Your task to perform on an android device: Do I have any events today? Image 0: 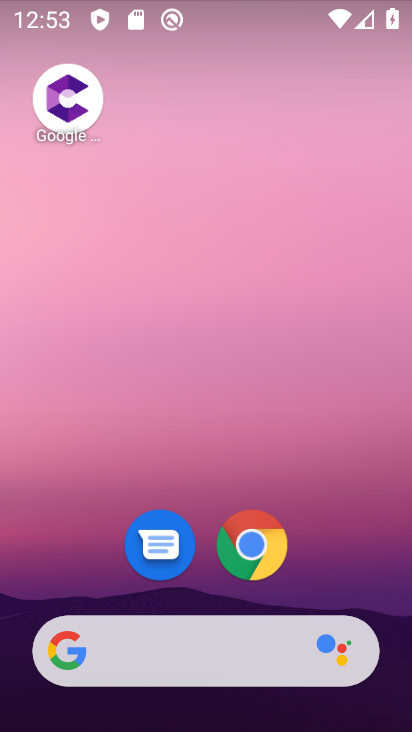
Step 0: drag from (354, 568) to (327, 127)
Your task to perform on an android device: Do I have any events today? Image 1: 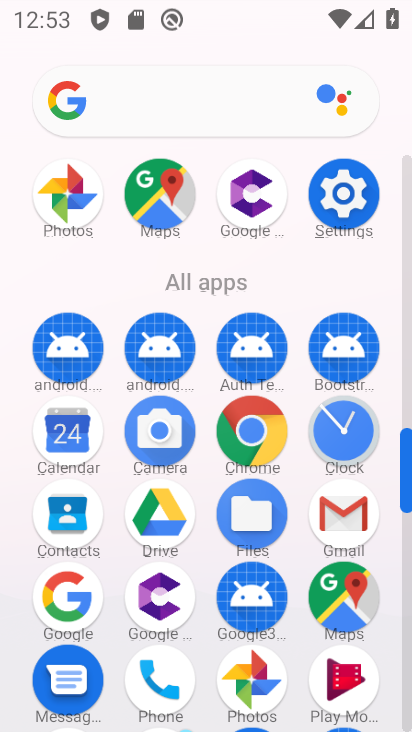
Step 1: click (407, 709)
Your task to perform on an android device: Do I have any events today? Image 2: 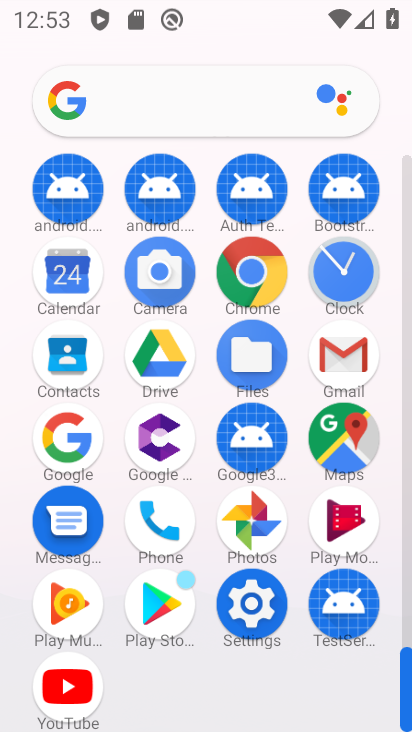
Step 2: click (66, 273)
Your task to perform on an android device: Do I have any events today? Image 3: 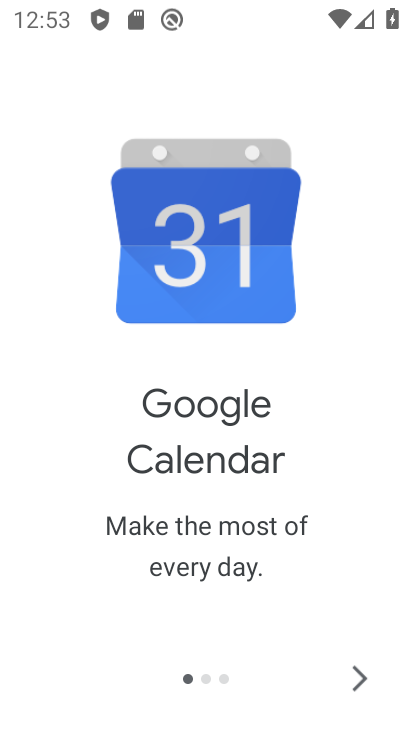
Step 3: click (361, 680)
Your task to perform on an android device: Do I have any events today? Image 4: 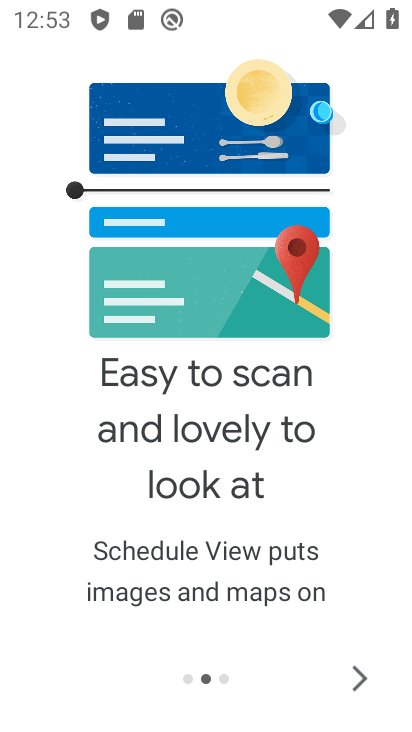
Step 4: click (361, 680)
Your task to perform on an android device: Do I have any events today? Image 5: 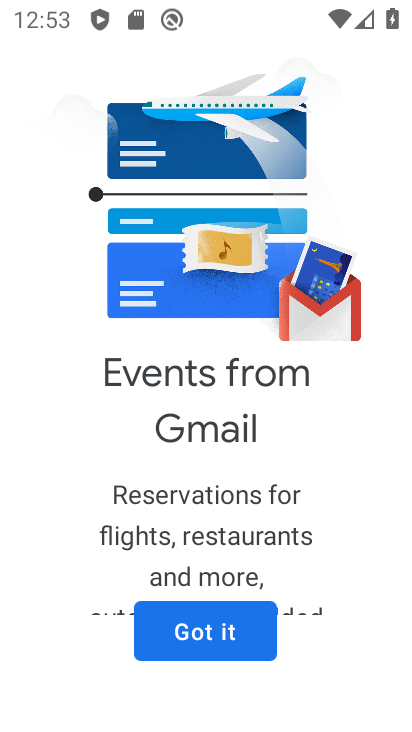
Step 5: click (361, 680)
Your task to perform on an android device: Do I have any events today? Image 6: 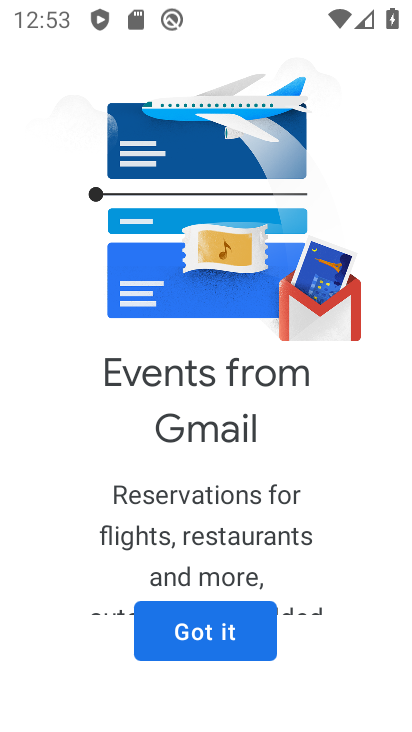
Step 6: click (184, 620)
Your task to perform on an android device: Do I have any events today? Image 7: 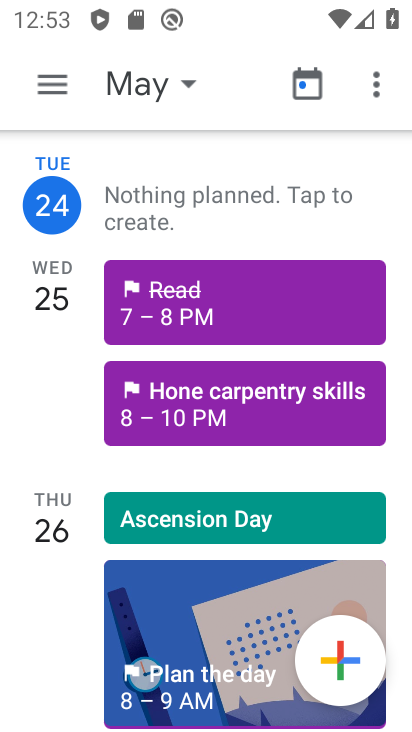
Step 7: click (58, 79)
Your task to perform on an android device: Do I have any events today? Image 8: 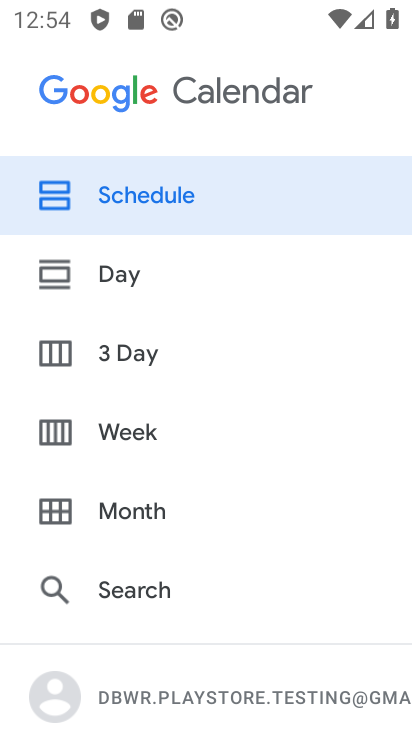
Step 8: click (133, 262)
Your task to perform on an android device: Do I have any events today? Image 9: 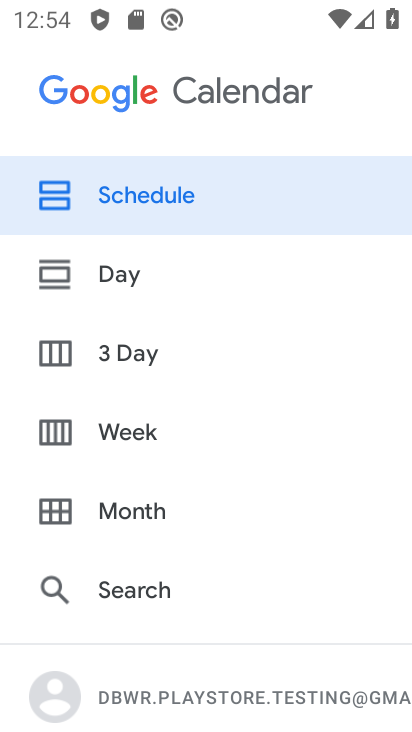
Step 9: click (129, 271)
Your task to perform on an android device: Do I have any events today? Image 10: 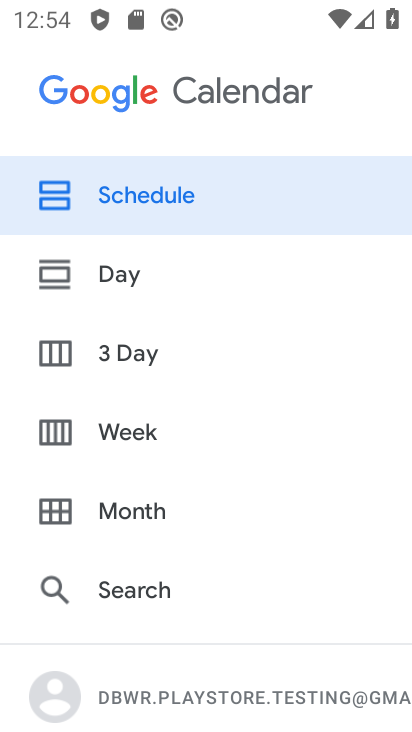
Step 10: click (129, 271)
Your task to perform on an android device: Do I have any events today? Image 11: 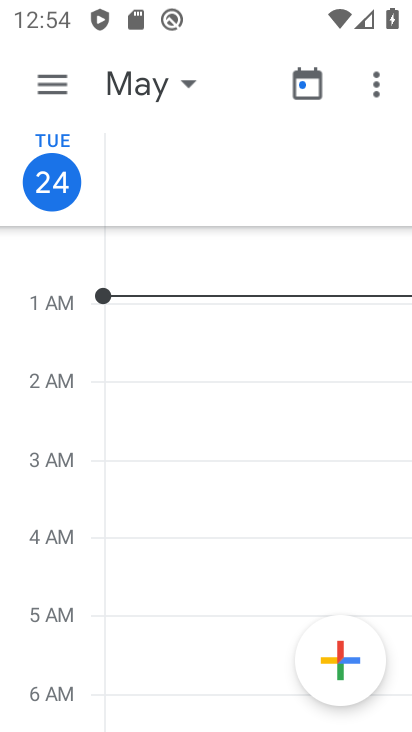
Step 11: task complete